Your task to perform on an android device: Open Google Maps Image 0: 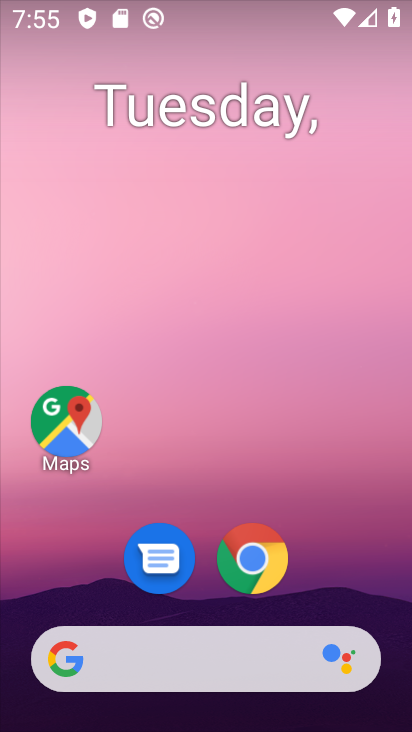
Step 0: click (73, 437)
Your task to perform on an android device: Open Google Maps Image 1: 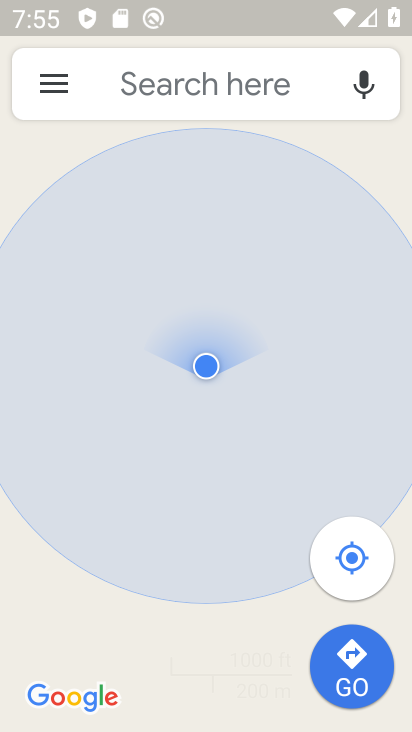
Step 1: task complete